Your task to perform on an android device: open chrome privacy settings Image 0: 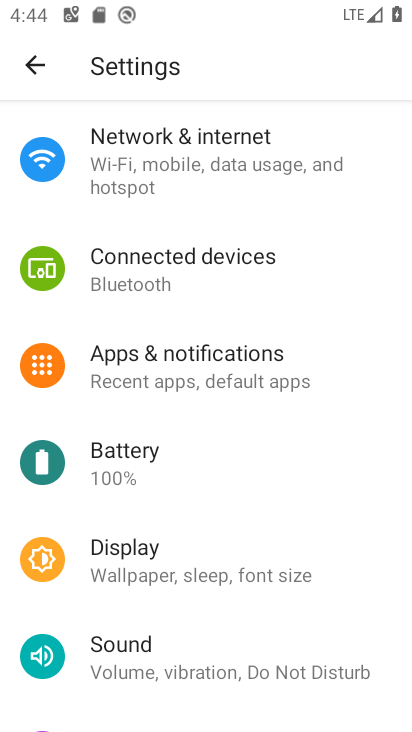
Step 0: press back button
Your task to perform on an android device: open chrome privacy settings Image 1: 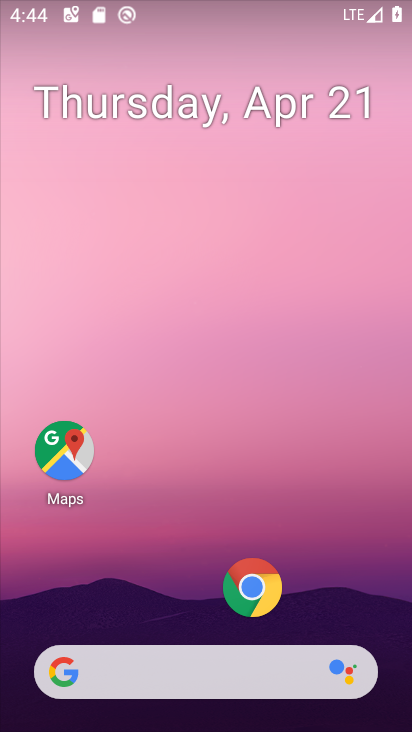
Step 1: click (257, 593)
Your task to perform on an android device: open chrome privacy settings Image 2: 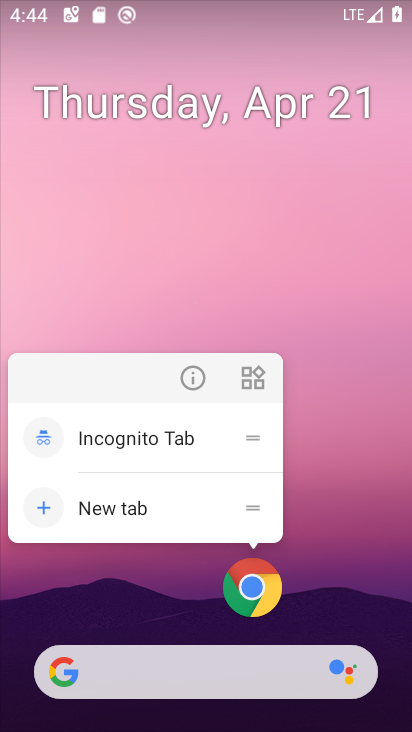
Step 2: click (248, 590)
Your task to perform on an android device: open chrome privacy settings Image 3: 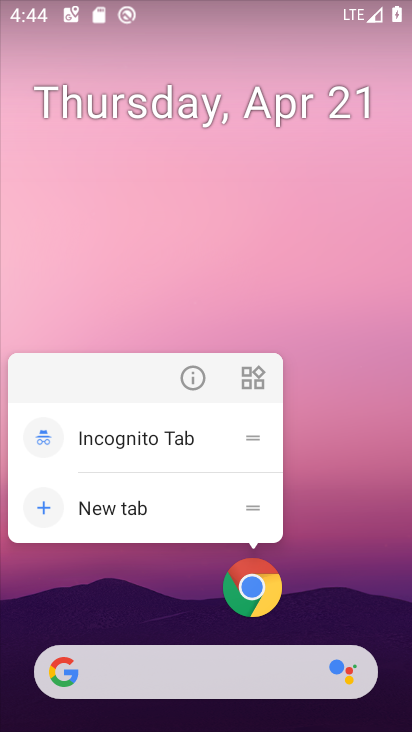
Step 3: click (248, 590)
Your task to perform on an android device: open chrome privacy settings Image 4: 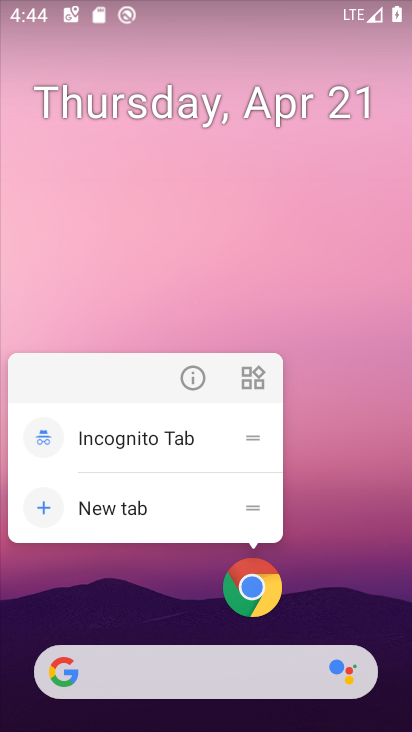
Step 4: click (259, 587)
Your task to perform on an android device: open chrome privacy settings Image 5: 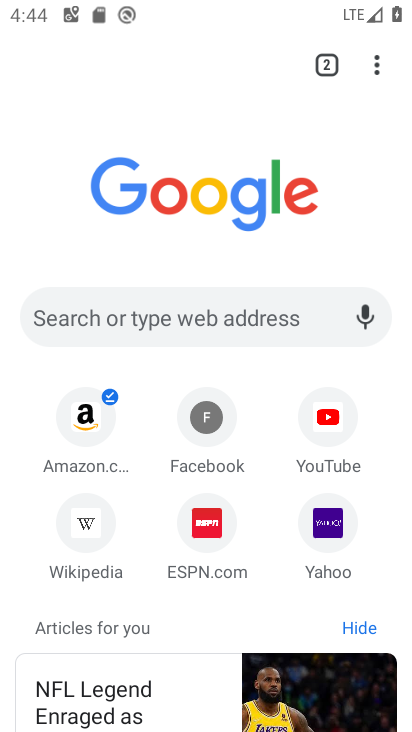
Step 5: drag from (377, 72) to (271, 620)
Your task to perform on an android device: open chrome privacy settings Image 6: 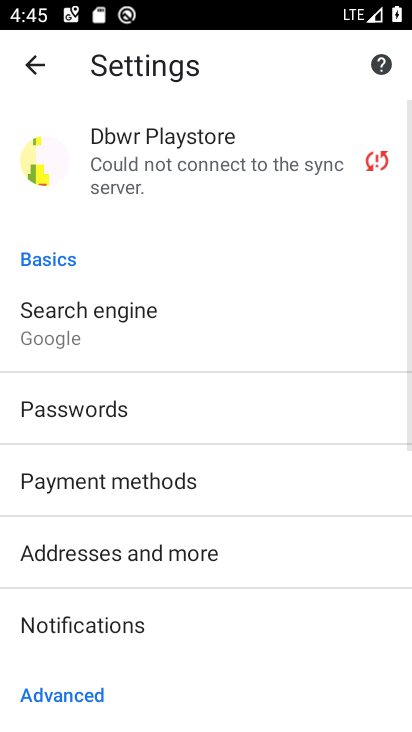
Step 6: drag from (152, 661) to (292, 265)
Your task to perform on an android device: open chrome privacy settings Image 7: 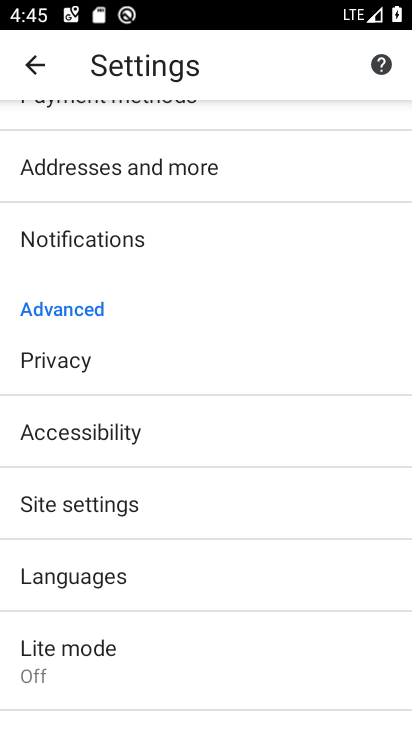
Step 7: click (133, 358)
Your task to perform on an android device: open chrome privacy settings Image 8: 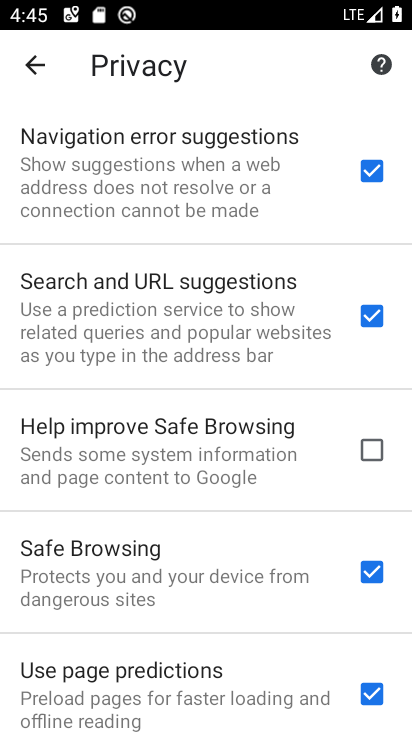
Step 8: task complete